Your task to perform on an android device: turn pop-ups off in chrome Image 0: 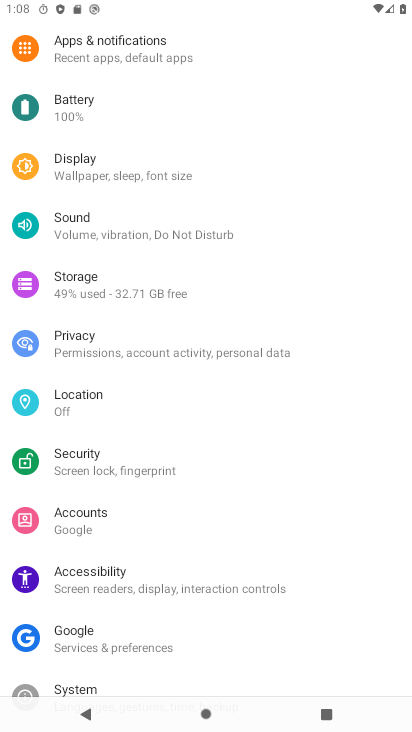
Step 0: press home button
Your task to perform on an android device: turn pop-ups off in chrome Image 1: 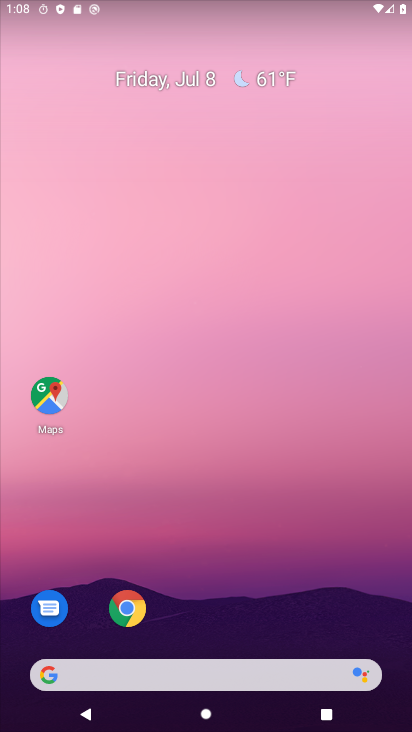
Step 1: click (127, 605)
Your task to perform on an android device: turn pop-ups off in chrome Image 2: 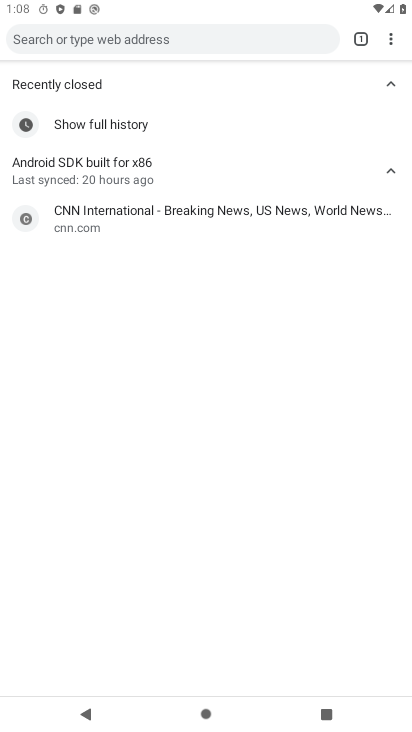
Step 2: click (384, 37)
Your task to perform on an android device: turn pop-ups off in chrome Image 3: 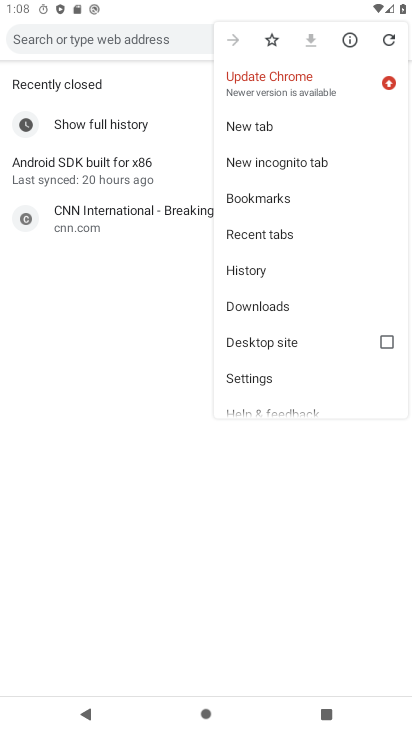
Step 3: click (284, 377)
Your task to perform on an android device: turn pop-ups off in chrome Image 4: 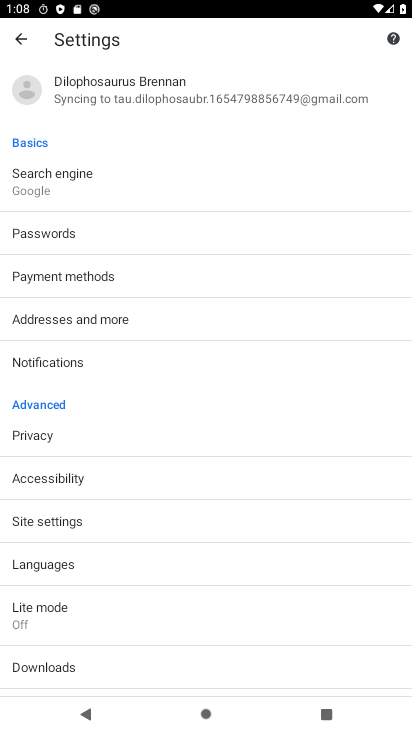
Step 4: click (76, 517)
Your task to perform on an android device: turn pop-ups off in chrome Image 5: 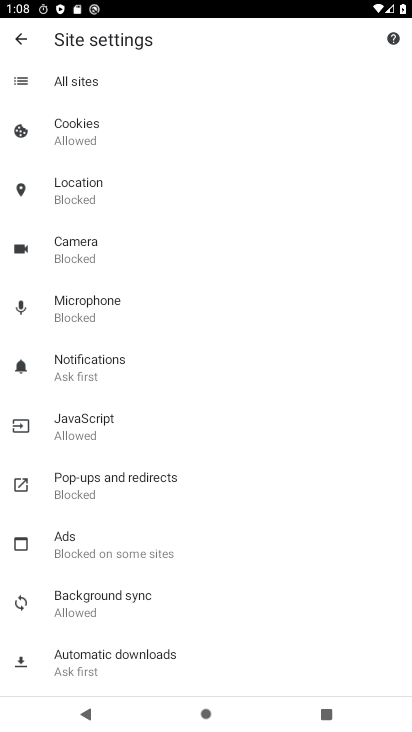
Step 5: click (102, 483)
Your task to perform on an android device: turn pop-ups off in chrome Image 6: 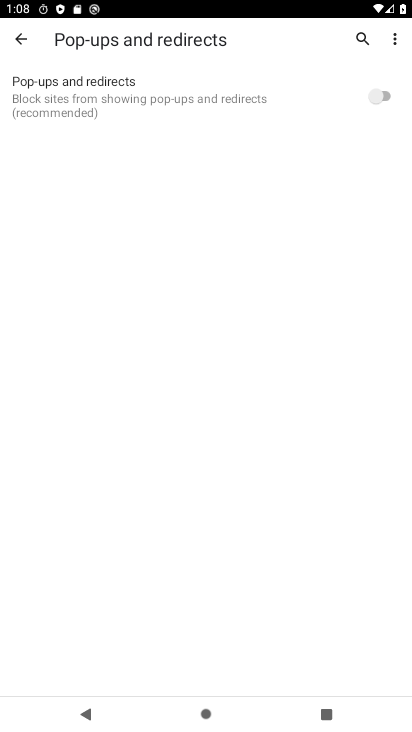
Step 6: task complete